Your task to perform on an android device: change text size in settings app Image 0: 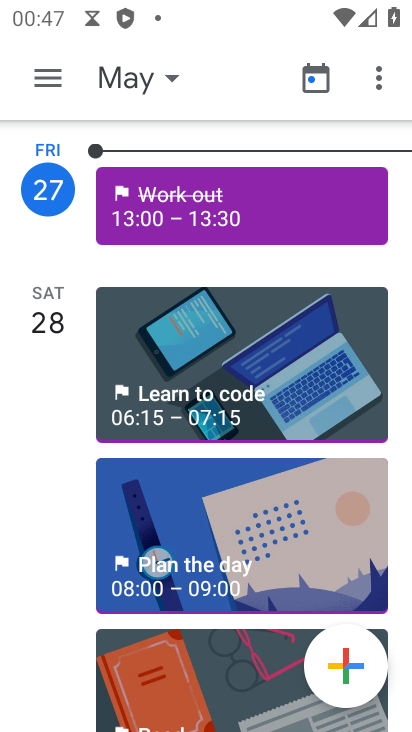
Step 0: press home button
Your task to perform on an android device: change text size in settings app Image 1: 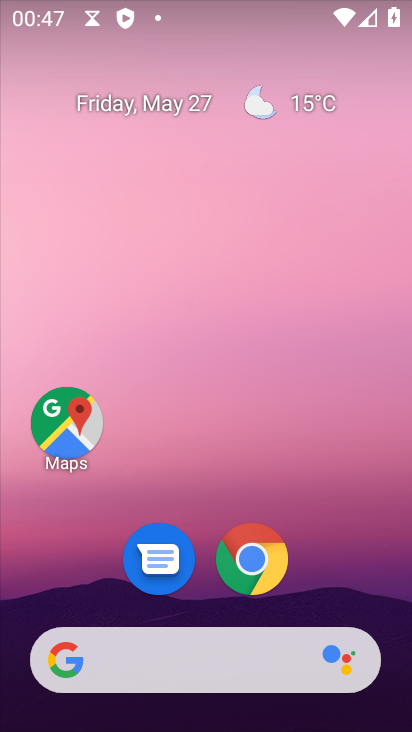
Step 1: drag from (358, 500) to (259, 21)
Your task to perform on an android device: change text size in settings app Image 2: 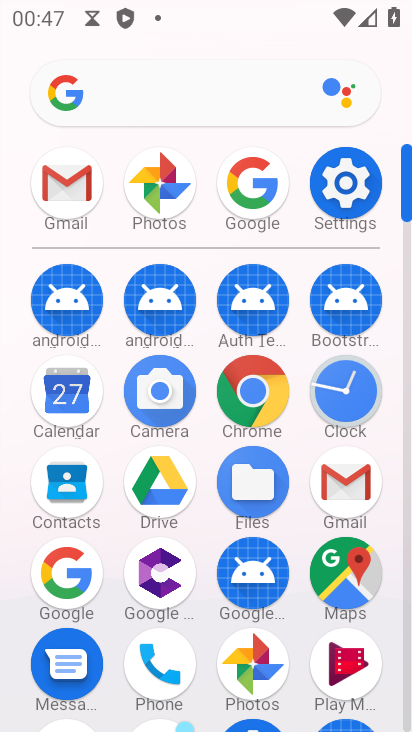
Step 2: click (348, 187)
Your task to perform on an android device: change text size in settings app Image 3: 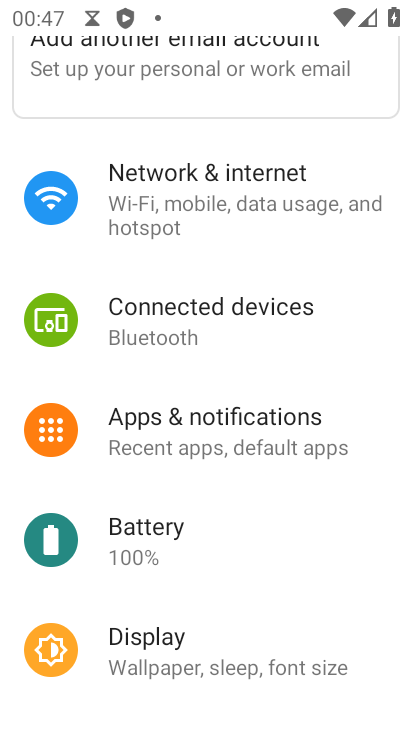
Step 3: click (258, 652)
Your task to perform on an android device: change text size in settings app Image 4: 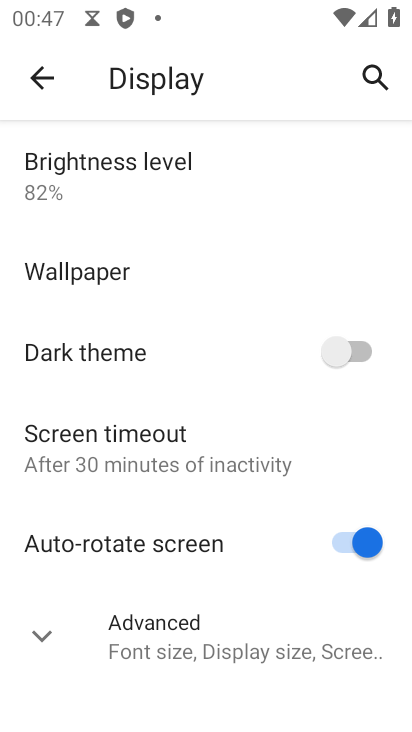
Step 4: drag from (272, 561) to (268, 199)
Your task to perform on an android device: change text size in settings app Image 5: 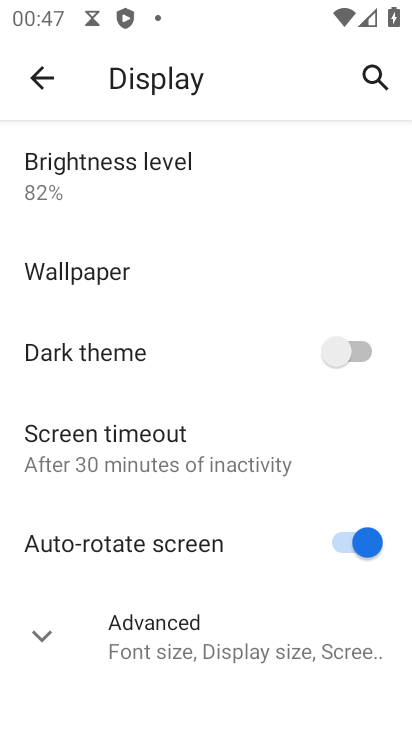
Step 5: click (261, 633)
Your task to perform on an android device: change text size in settings app Image 6: 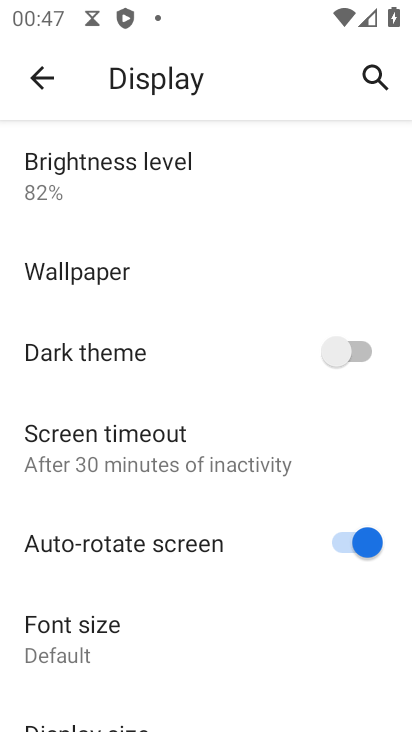
Step 6: click (179, 630)
Your task to perform on an android device: change text size in settings app Image 7: 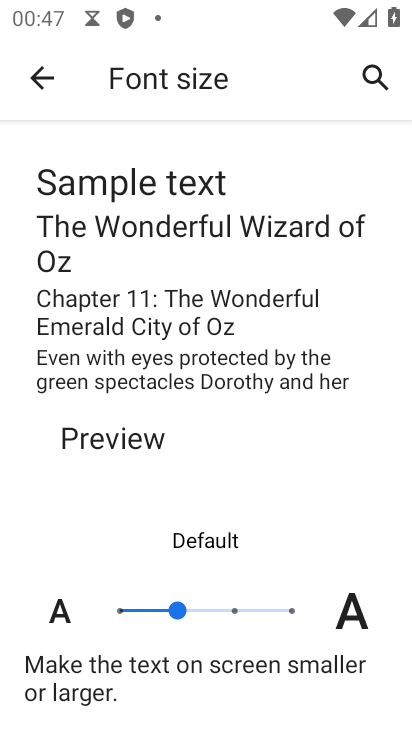
Step 7: click (121, 613)
Your task to perform on an android device: change text size in settings app Image 8: 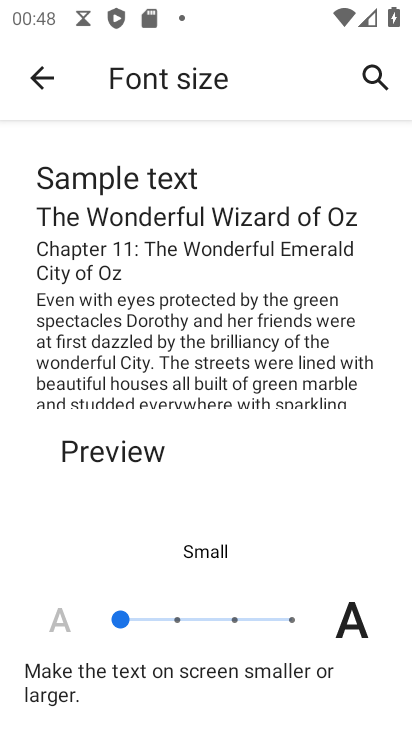
Step 8: task complete